Your task to perform on an android device: Go to sound settings Image 0: 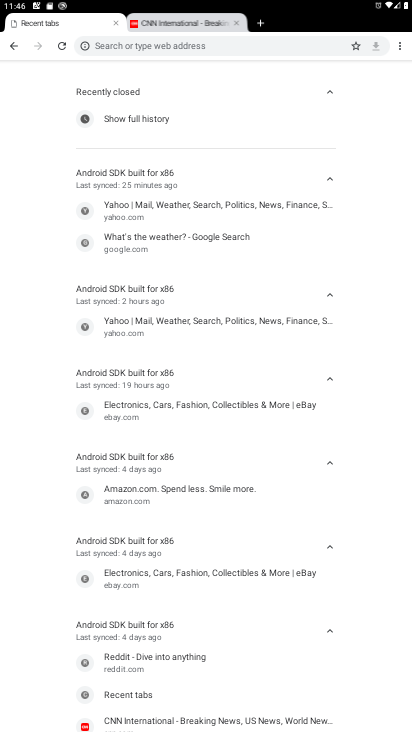
Step 0: press home button
Your task to perform on an android device: Go to sound settings Image 1: 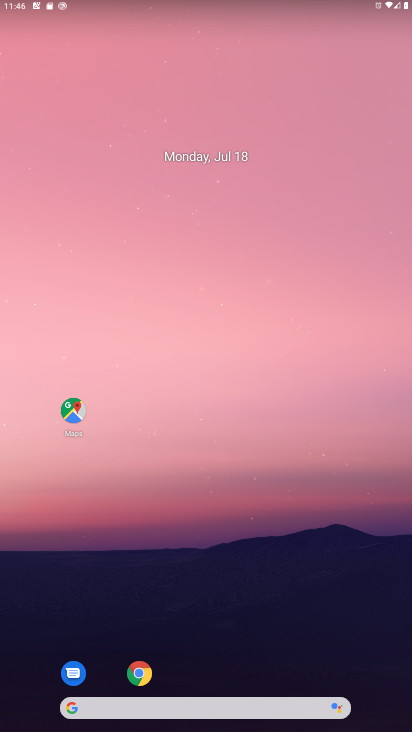
Step 1: drag from (267, 654) to (269, 110)
Your task to perform on an android device: Go to sound settings Image 2: 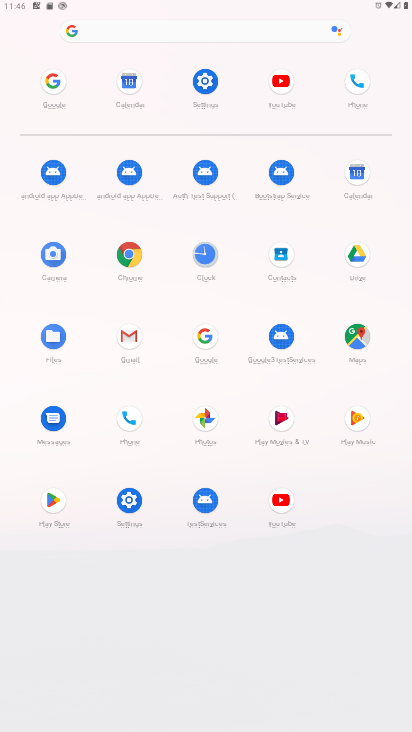
Step 2: click (196, 93)
Your task to perform on an android device: Go to sound settings Image 3: 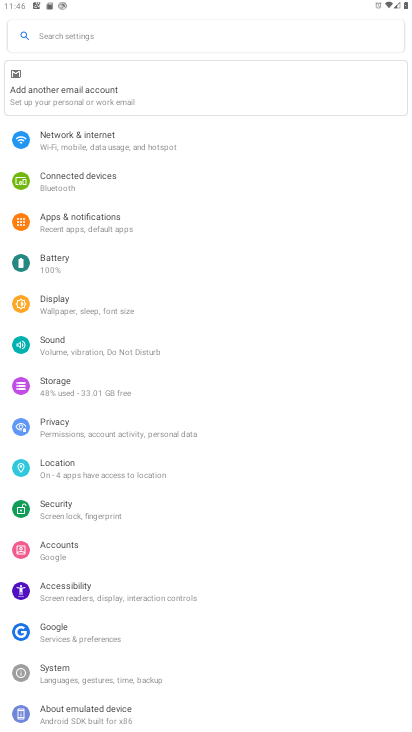
Step 3: click (160, 359)
Your task to perform on an android device: Go to sound settings Image 4: 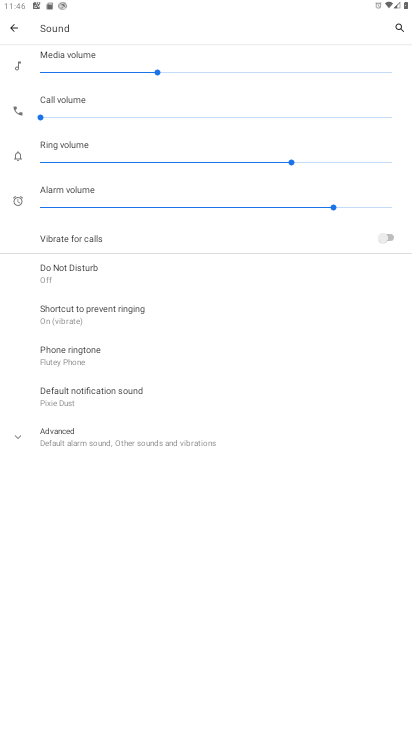
Step 4: task complete